Your task to perform on an android device: Go to CNN.com Image 0: 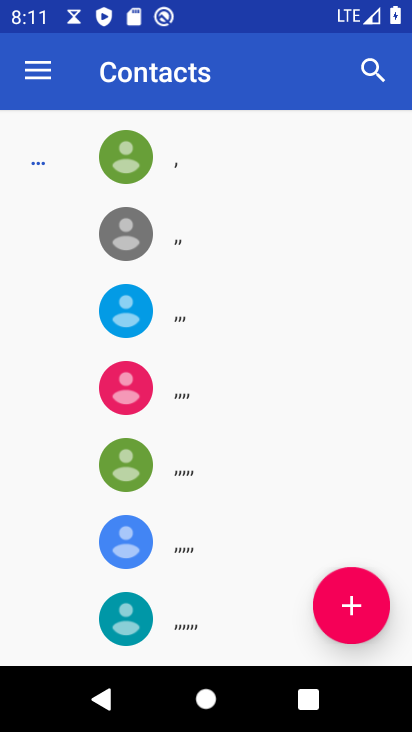
Step 0: press home button
Your task to perform on an android device: Go to CNN.com Image 1: 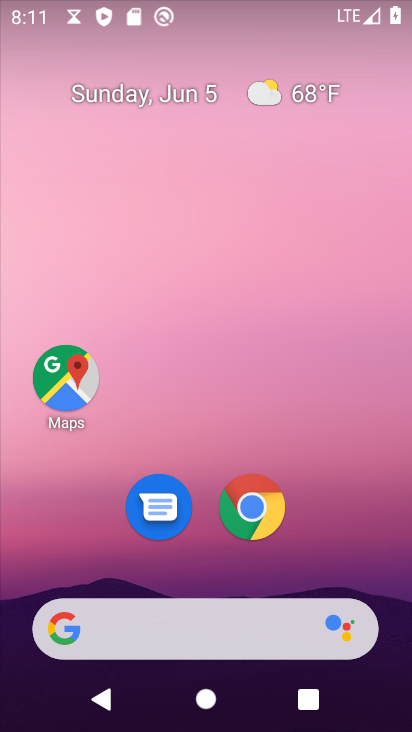
Step 1: click (266, 503)
Your task to perform on an android device: Go to CNN.com Image 2: 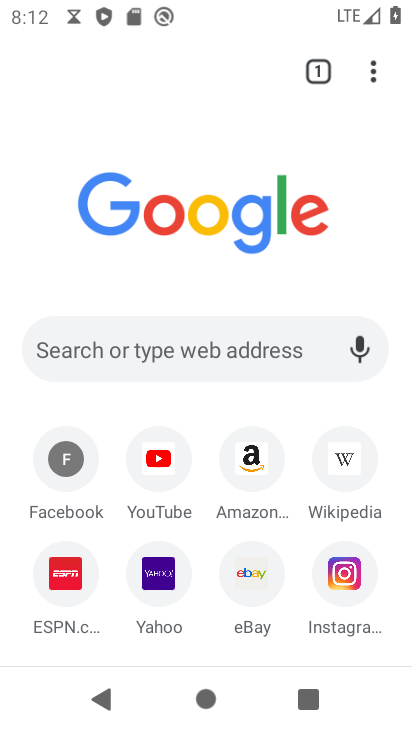
Step 2: click (184, 337)
Your task to perform on an android device: Go to CNN.com Image 3: 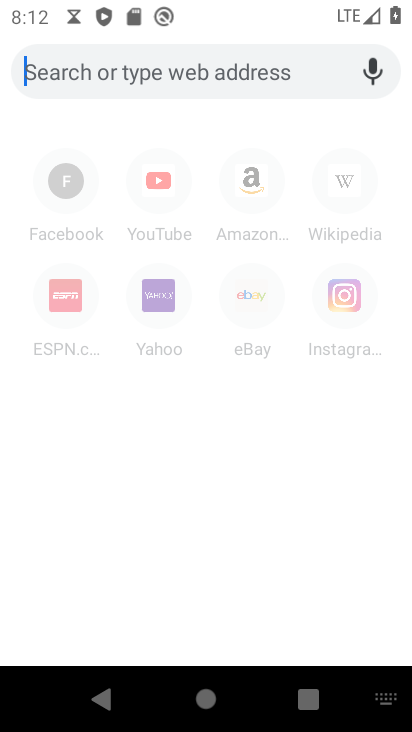
Step 3: type "CNN.com"
Your task to perform on an android device: Go to CNN.com Image 4: 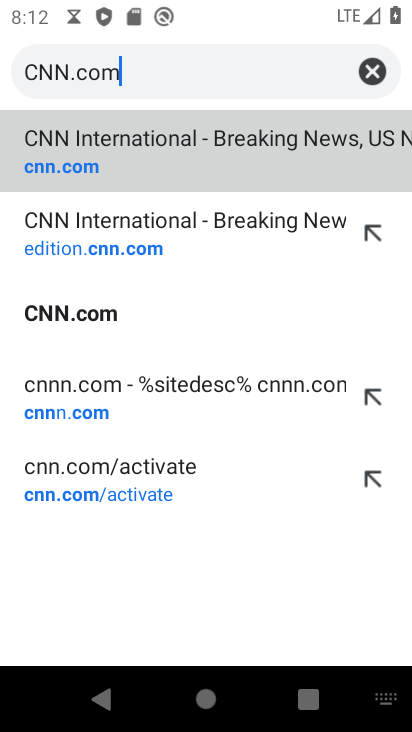
Step 4: click (203, 173)
Your task to perform on an android device: Go to CNN.com Image 5: 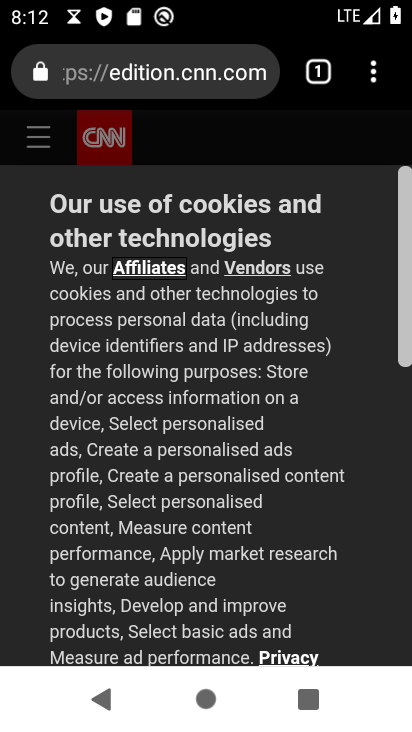
Step 5: task complete